Your task to perform on an android device: What is the news today? Image 0: 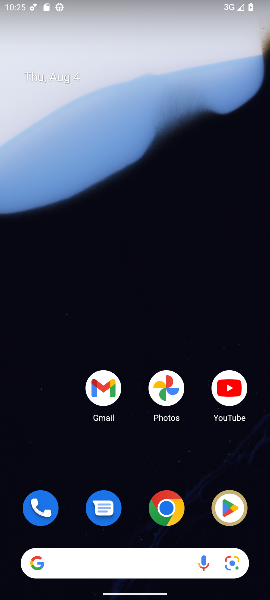
Step 0: click (128, 561)
Your task to perform on an android device: What is the news today? Image 1: 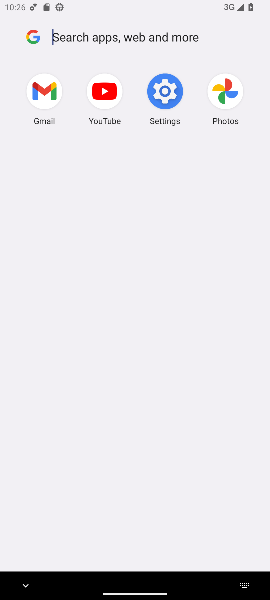
Step 1: press home button
Your task to perform on an android device: What is the news today? Image 2: 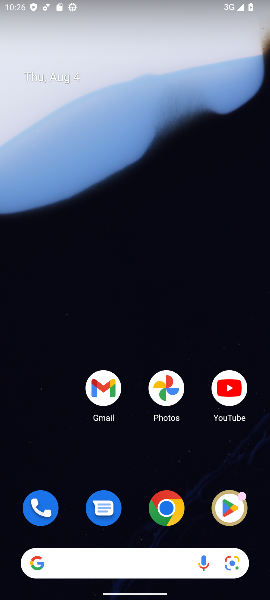
Step 2: click (113, 564)
Your task to perform on an android device: What is the news today? Image 3: 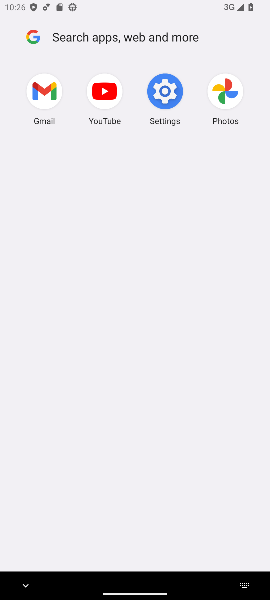
Step 3: click (133, 25)
Your task to perform on an android device: What is the news today? Image 4: 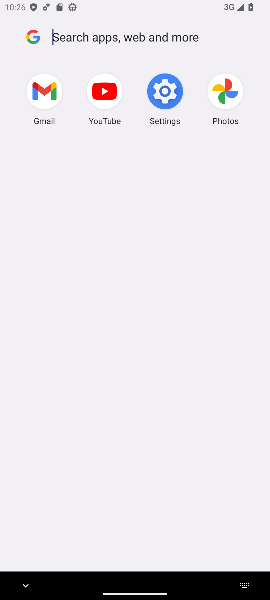
Step 4: type "news"
Your task to perform on an android device: What is the news today? Image 5: 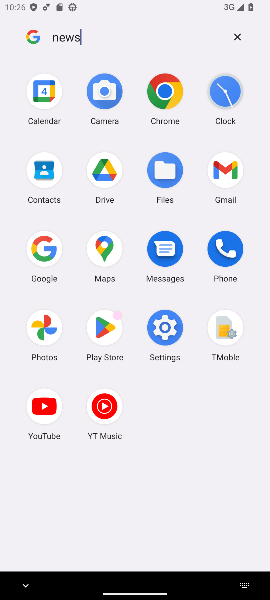
Step 5: type ""
Your task to perform on an android device: What is the news today? Image 6: 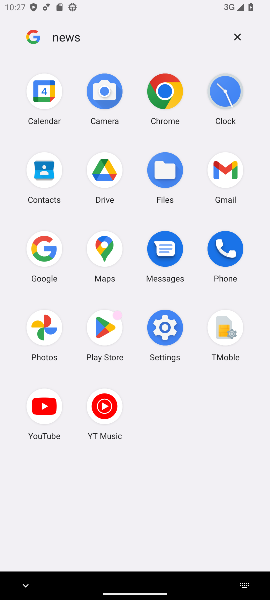
Step 6: press home button
Your task to perform on an android device: What is the news today? Image 7: 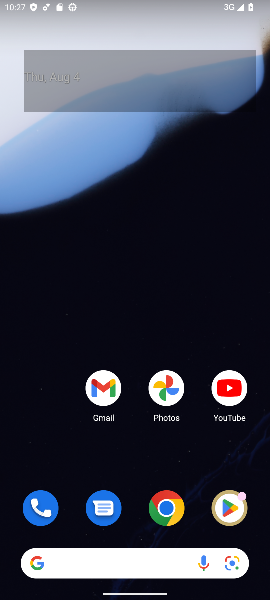
Step 7: click (166, 506)
Your task to perform on an android device: What is the news today? Image 8: 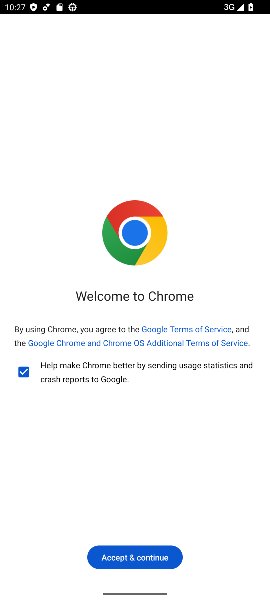
Step 8: click (134, 552)
Your task to perform on an android device: What is the news today? Image 9: 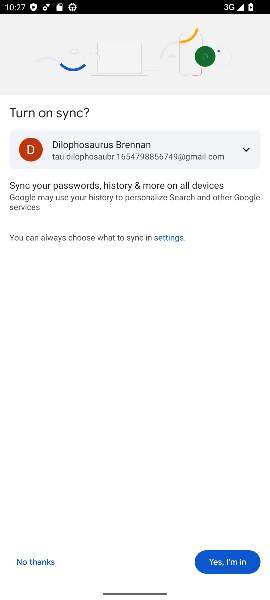
Step 9: click (32, 563)
Your task to perform on an android device: What is the news today? Image 10: 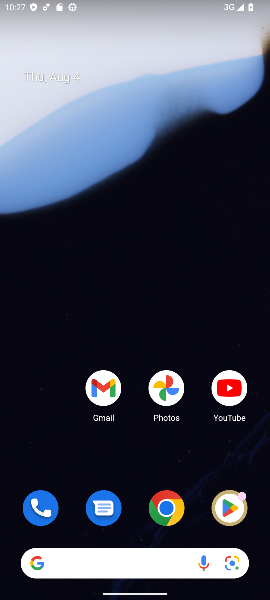
Step 10: task complete